Your task to perform on an android device: Search for the new Nintendo switch on Best Buy Image 0: 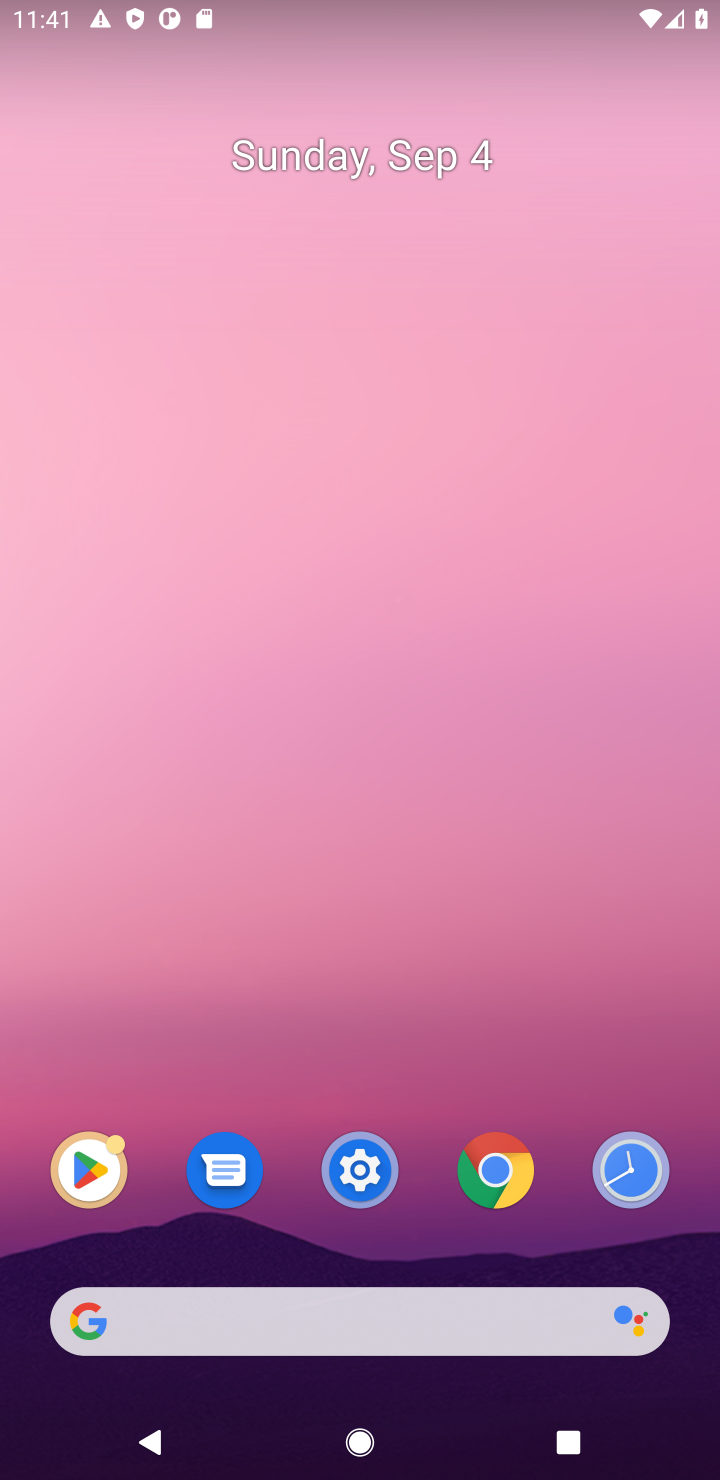
Step 0: click (379, 1337)
Your task to perform on an android device: Search for the new Nintendo switch on Best Buy Image 1: 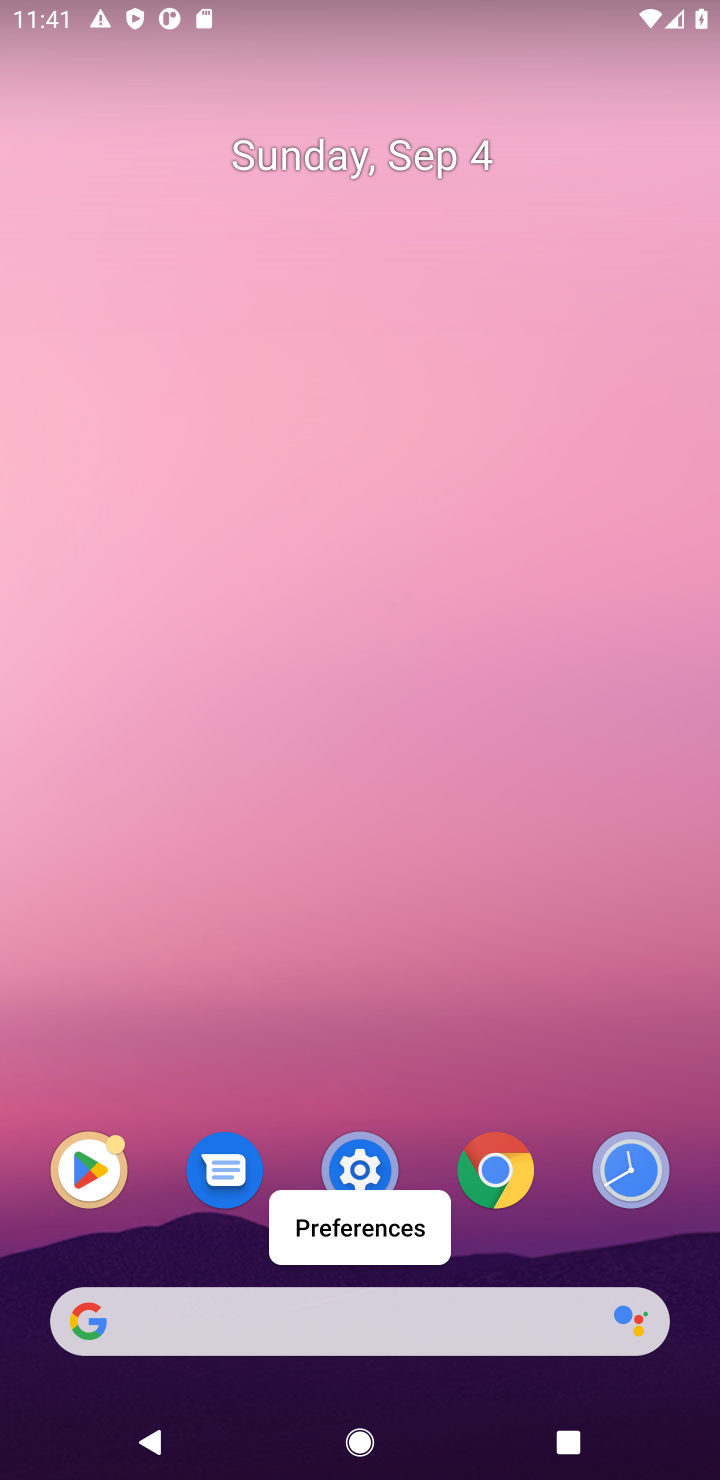
Step 1: click (448, 1316)
Your task to perform on an android device: Search for the new Nintendo switch on Best Buy Image 2: 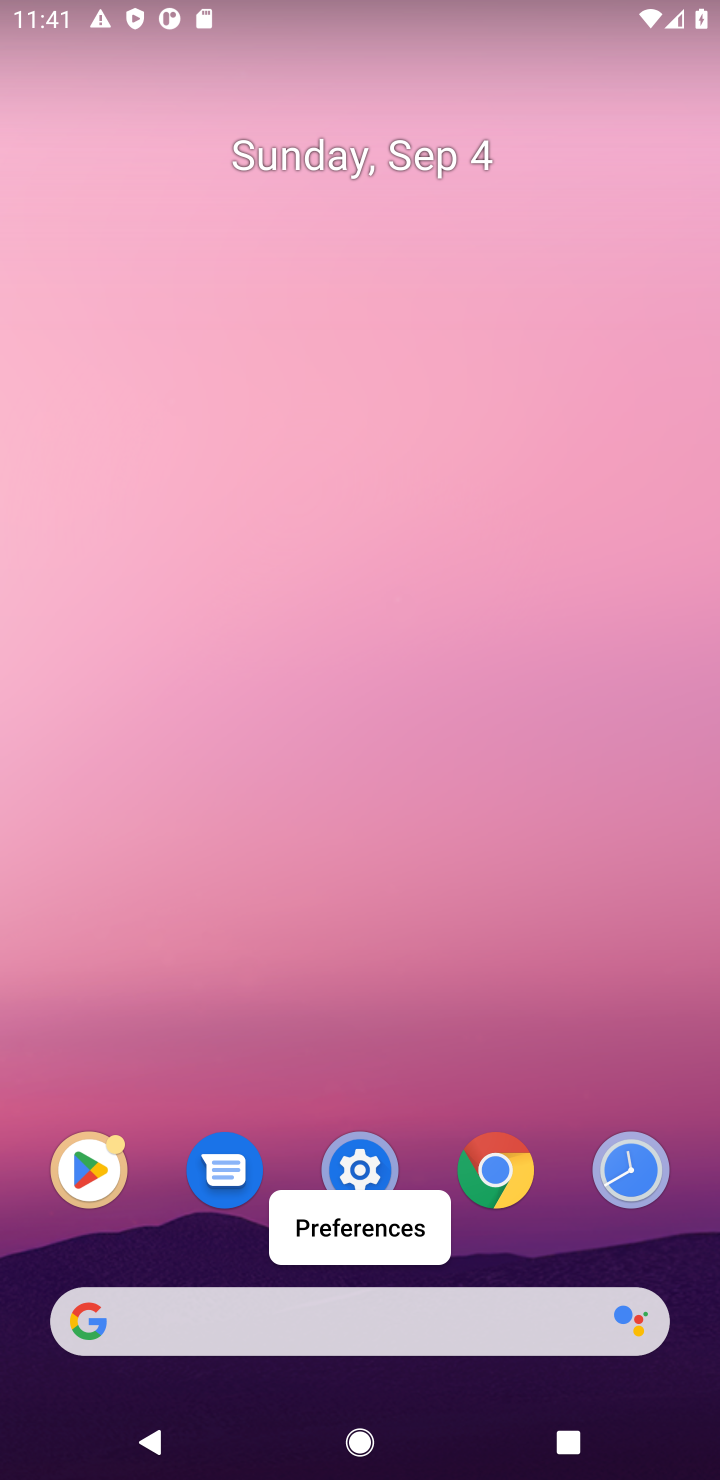
Step 2: click (391, 1319)
Your task to perform on an android device: Search for the new Nintendo switch on Best Buy Image 3: 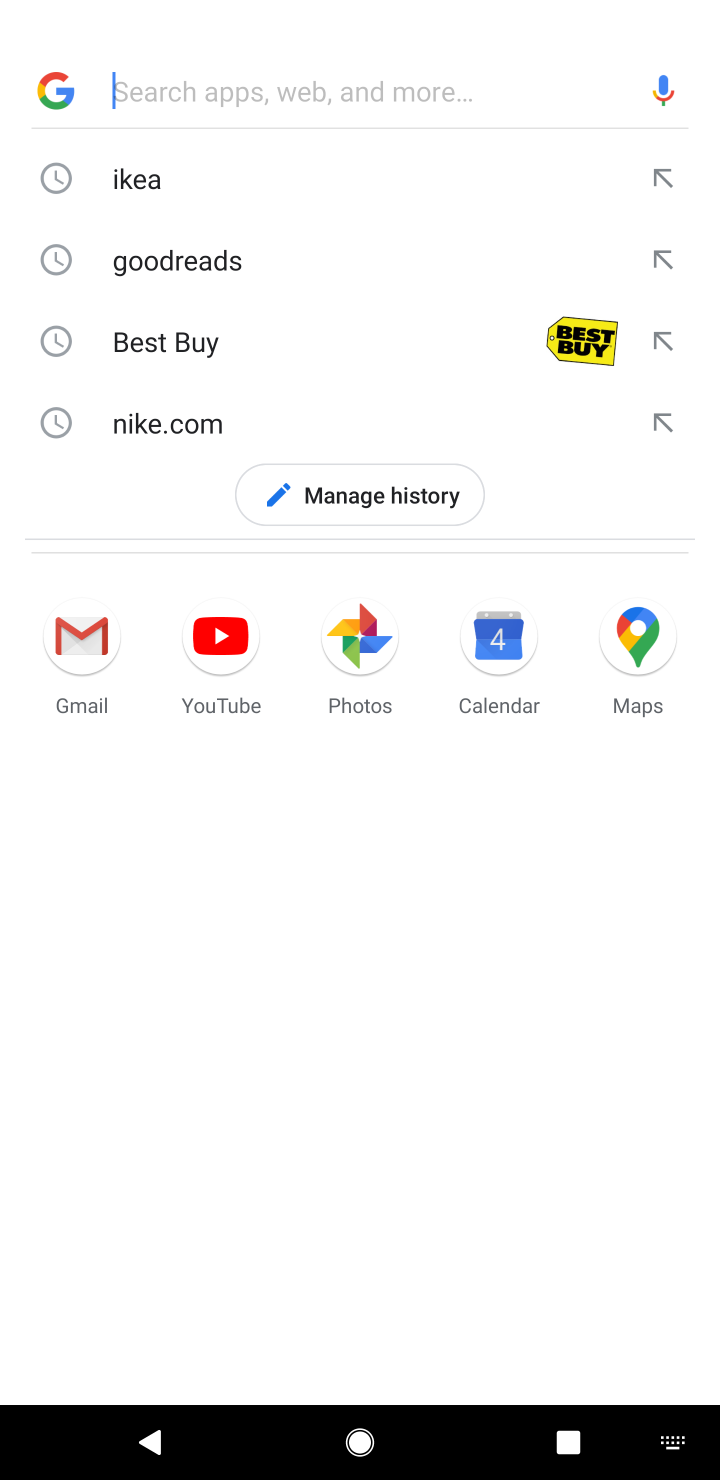
Step 3: click (216, 342)
Your task to perform on an android device: Search for the new Nintendo switch on Best Buy Image 4: 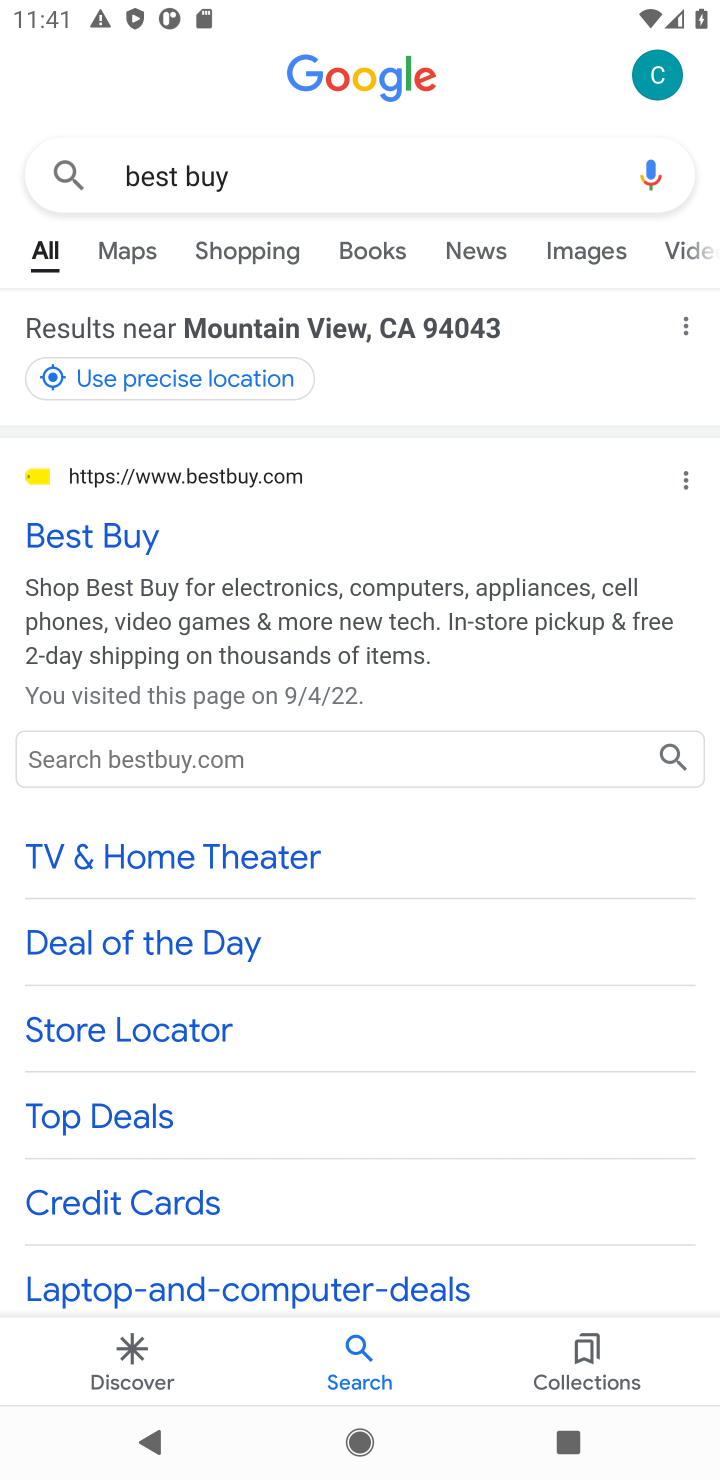
Step 4: click (122, 545)
Your task to perform on an android device: Search for the new Nintendo switch on Best Buy Image 5: 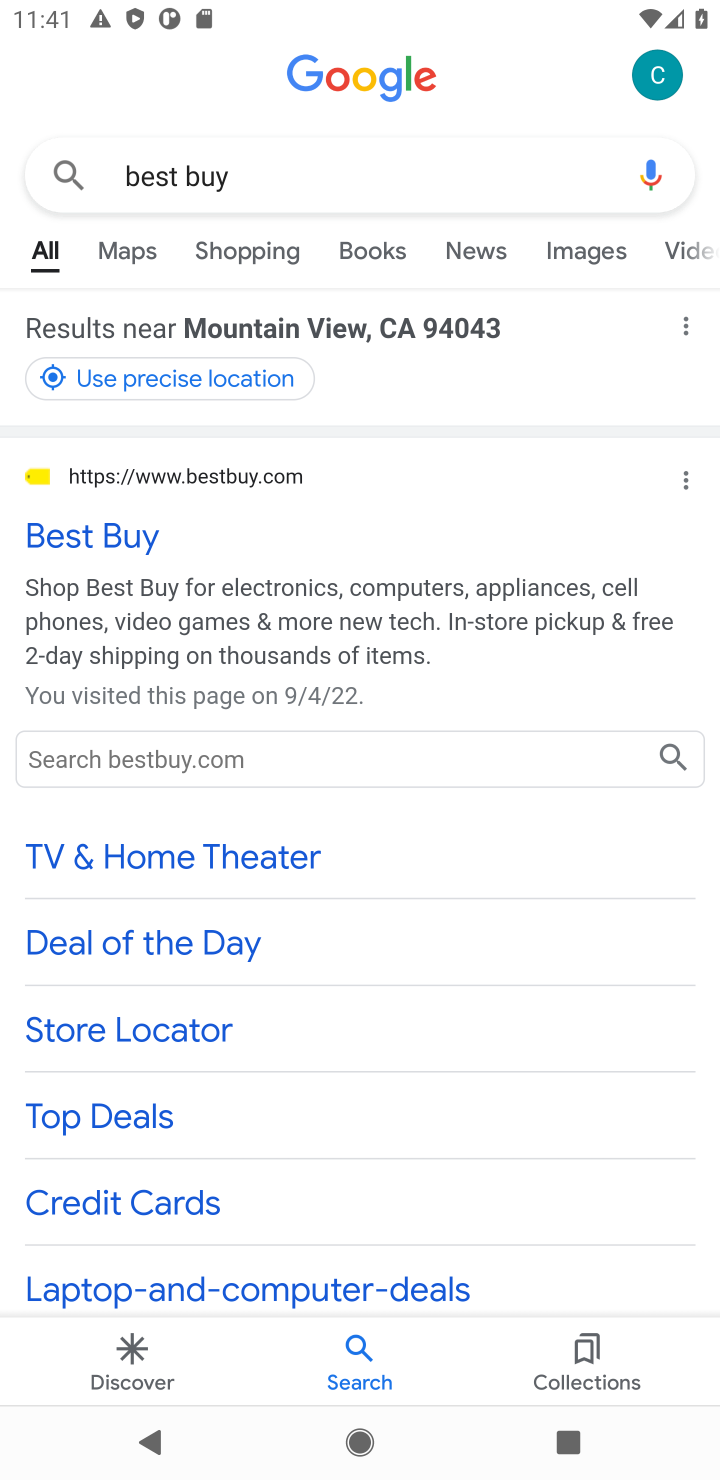
Step 5: click (133, 556)
Your task to perform on an android device: Search for the new Nintendo switch on Best Buy Image 6: 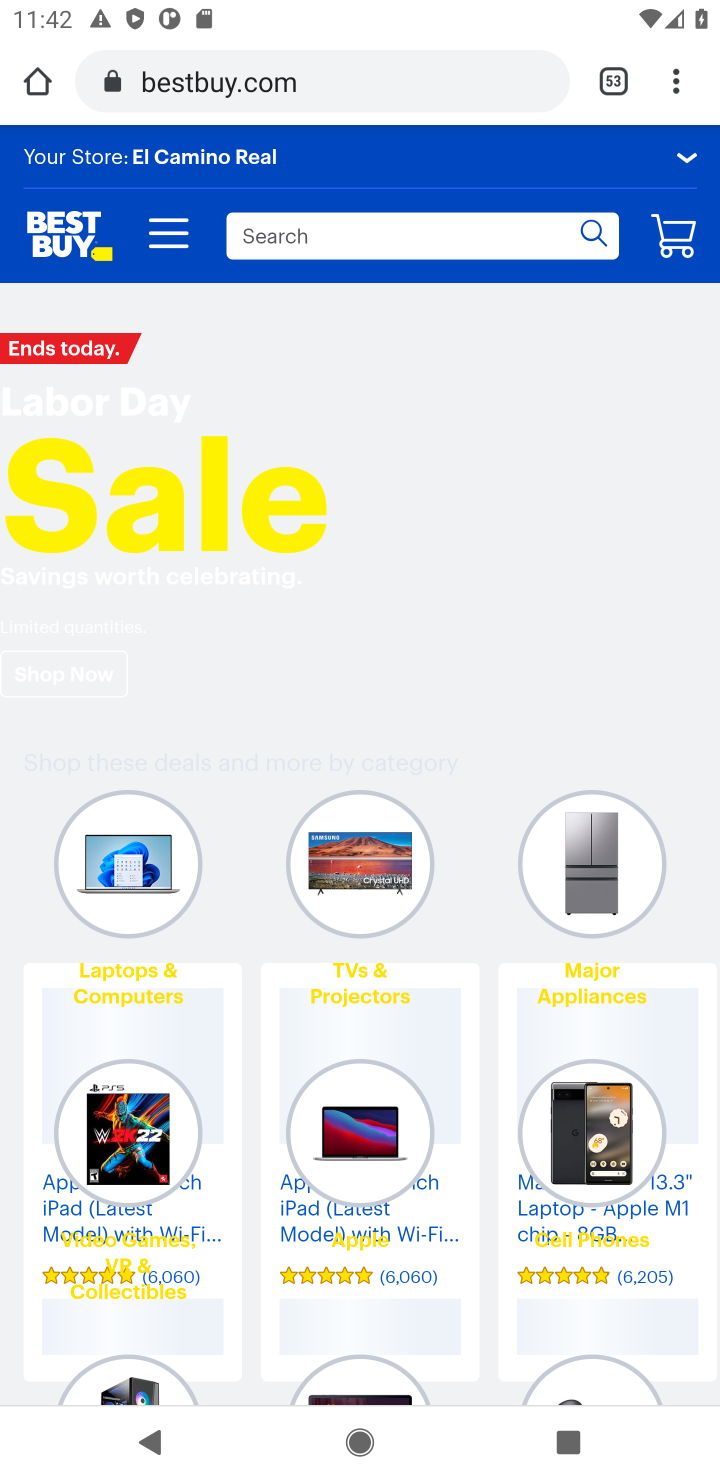
Step 6: click (335, 241)
Your task to perform on an android device: Search for the new Nintendo switch on Best Buy Image 7: 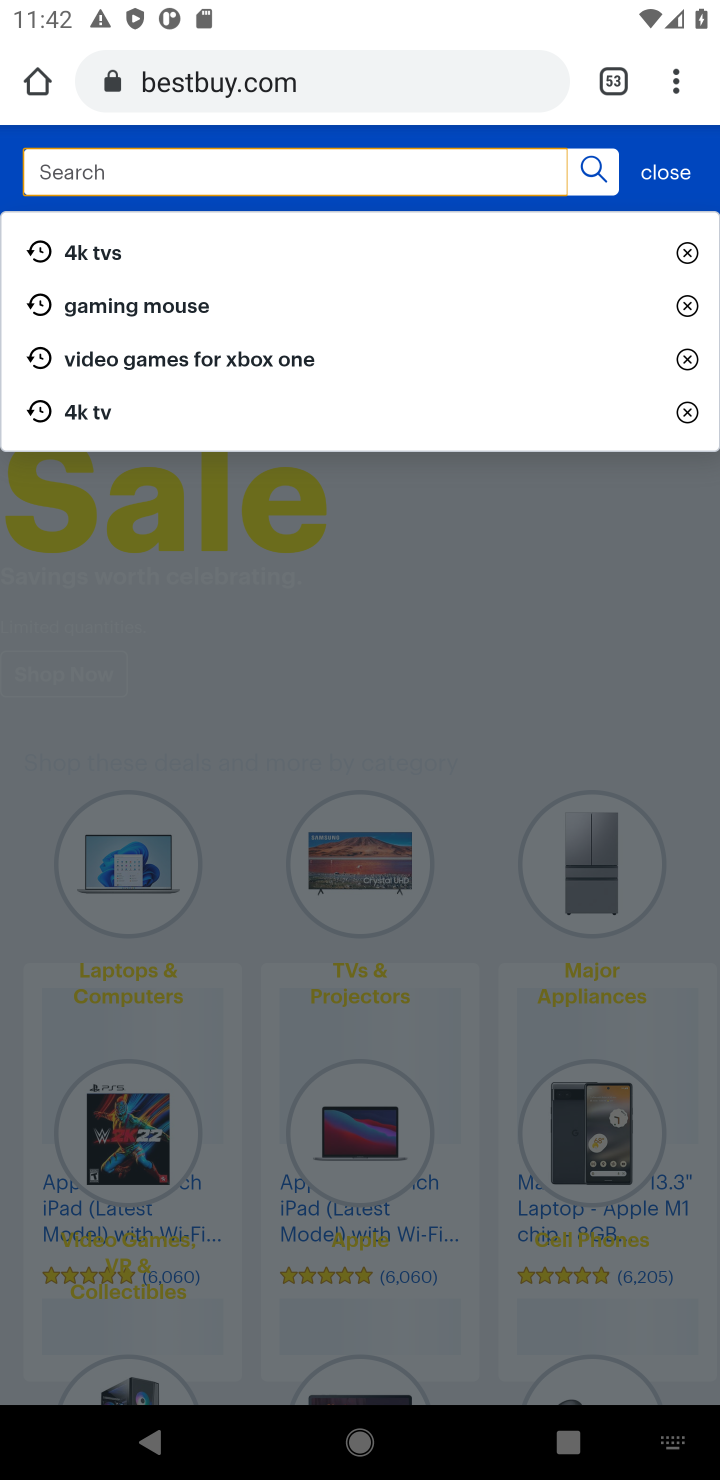
Step 7: type "Nintendo switch"
Your task to perform on an android device: Search for the new Nintendo switch on Best Buy Image 8: 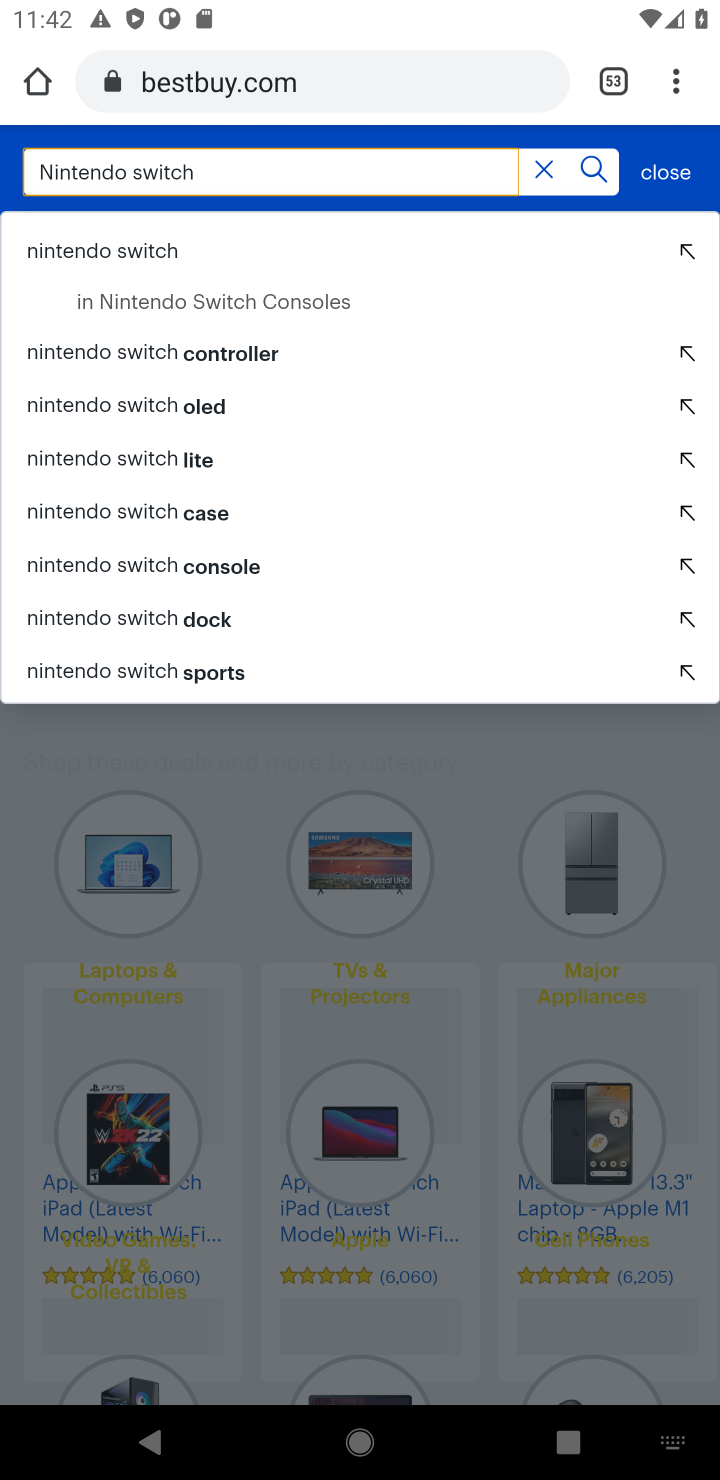
Step 8: click (258, 261)
Your task to perform on an android device: Search for the new Nintendo switch on Best Buy Image 9: 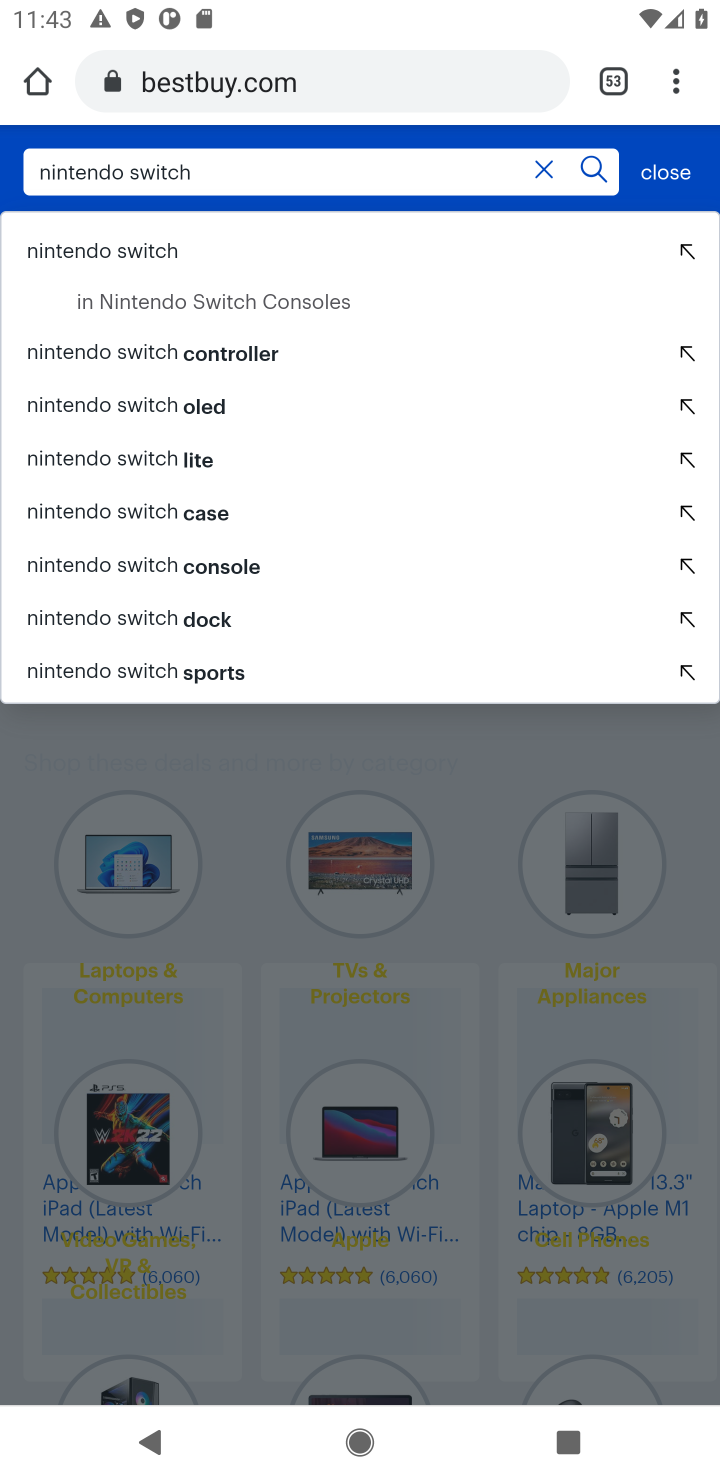
Step 9: click (204, 265)
Your task to perform on an android device: Search for the new Nintendo switch on Best Buy Image 10: 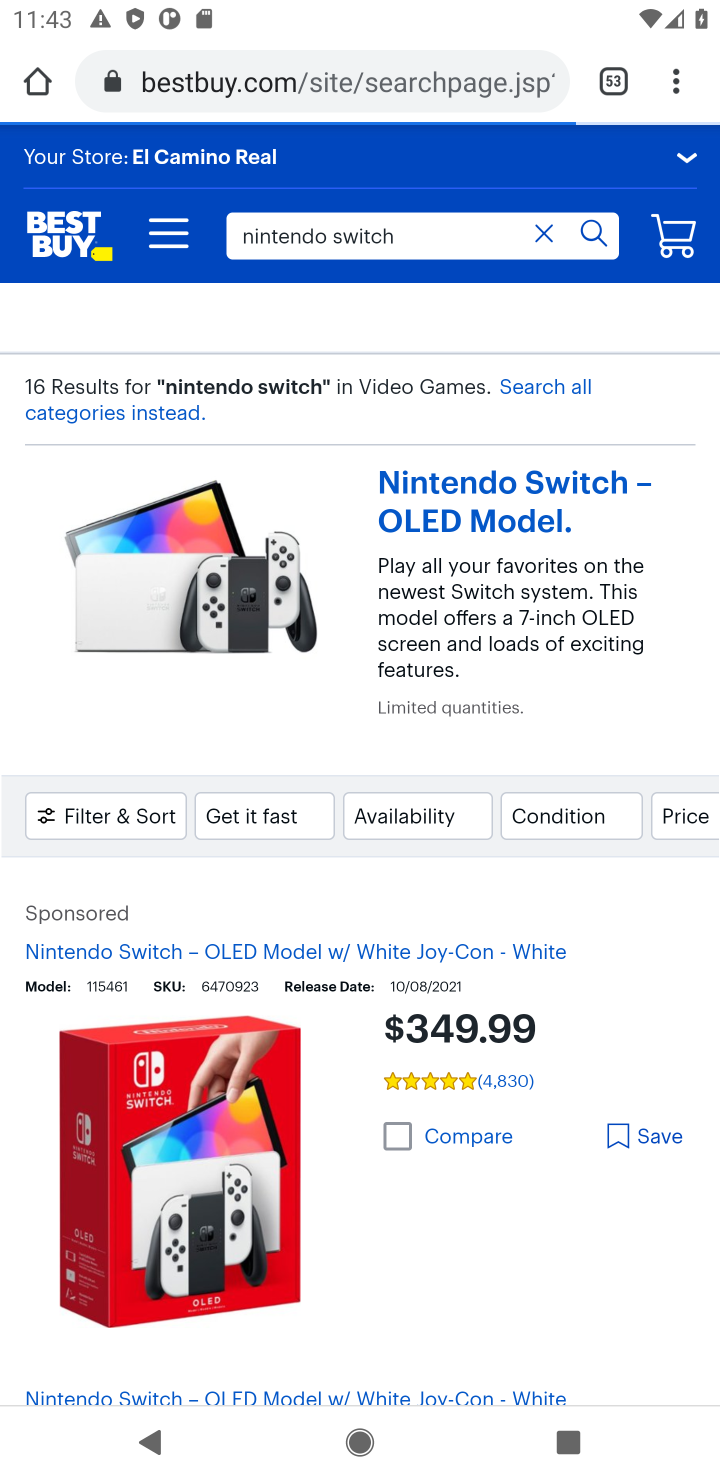
Step 10: click (632, 526)
Your task to perform on an android device: Search for the new Nintendo switch on Best Buy Image 11: 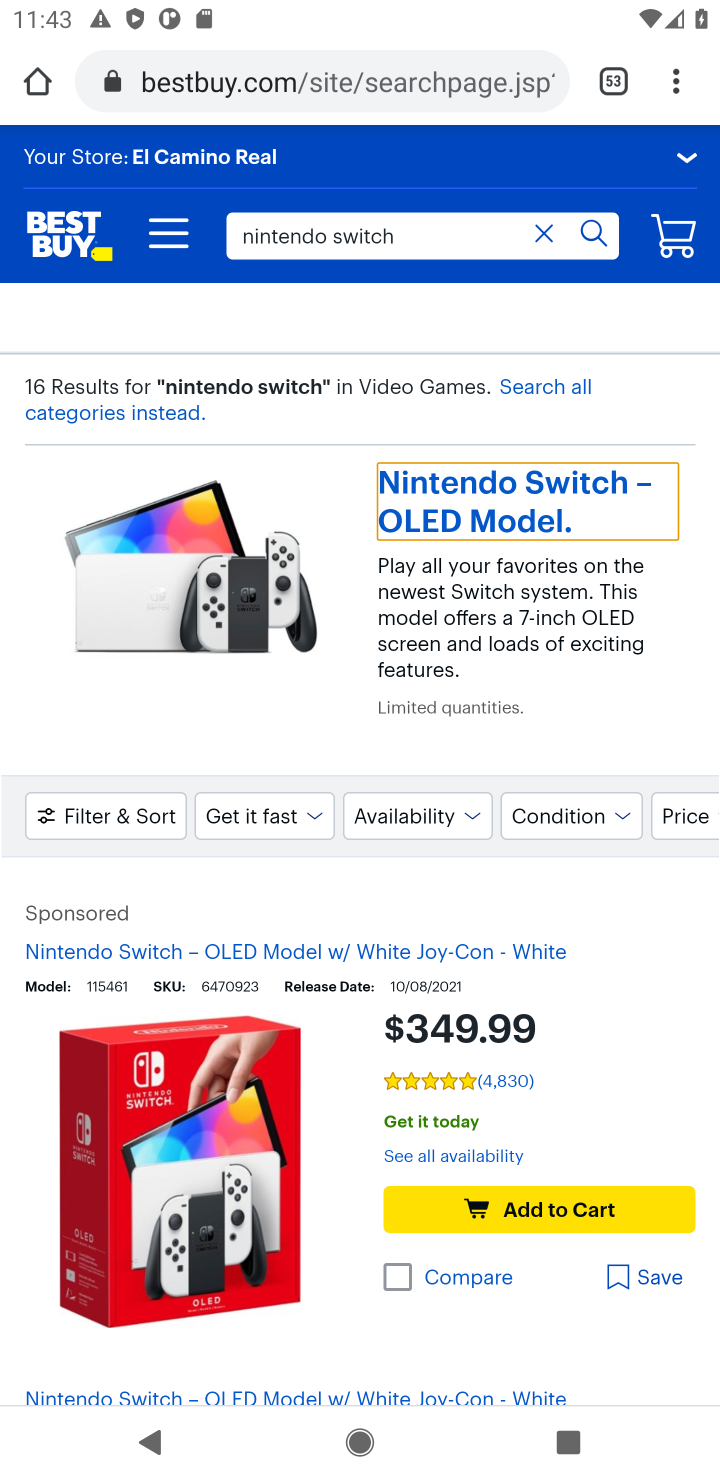
Step 11: task complete